Your task to perform on an android device: change the clock style Image 0: 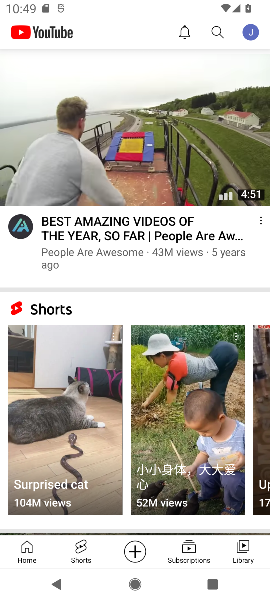
Step 0: press home button
Your task to perform on an android device: change the clock style Image 1: 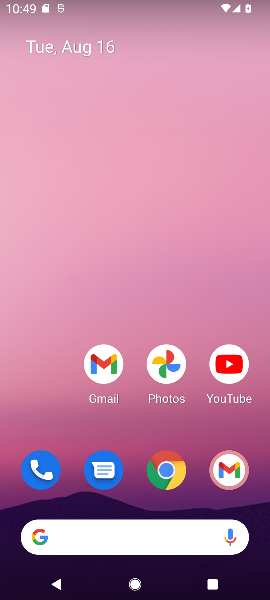
Step 1: drag from (68, 340) to (148, 0)
Your task to perform on an android device: change the clock style Image 2: 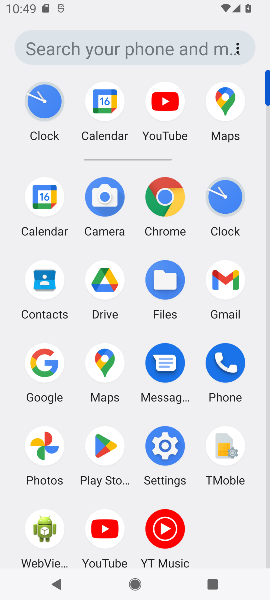
Step 2: click (45, 97)
Your task to perform on an android device: change the clock style Image 3: 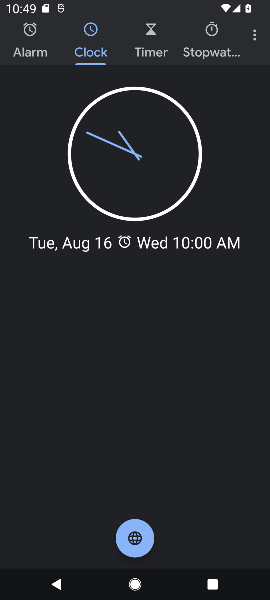
Step 3: click (258, 34)
Your task to perform on an android device: change the clock style Image 4: 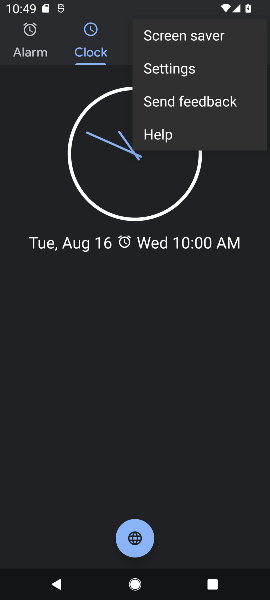
Step 4: click (186, 75)
Your task to perform on an android device: change the clock style Image 5: 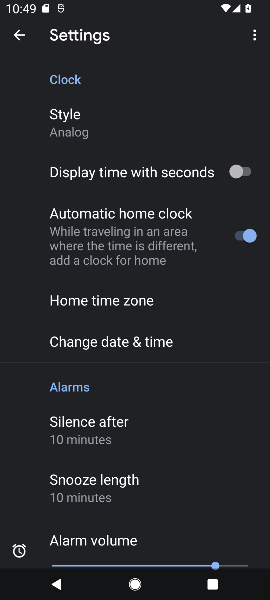
Step 5: click (84, 130)
Your task to perform on an android device: change the clock style Image 6: 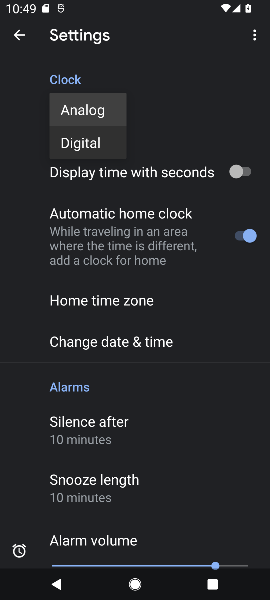
Step 6: click (90, 143)
Your task to perform on an android device: change the clock style Image 7: 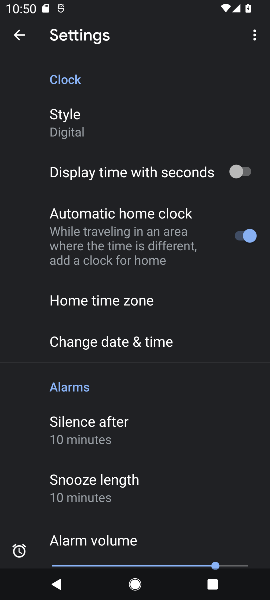
Step 7: click (22, 35)
Your task to perform on an android device: change the clock style Image 8: 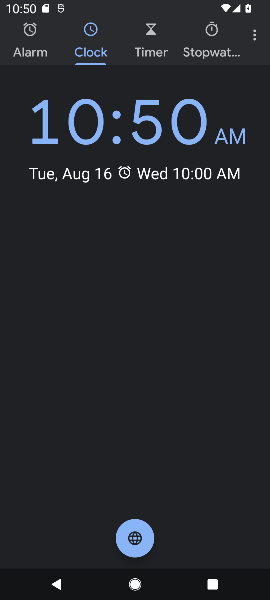
Step 8: task complete